Your task to perform on an android device: Open Reddit.com Image 0: 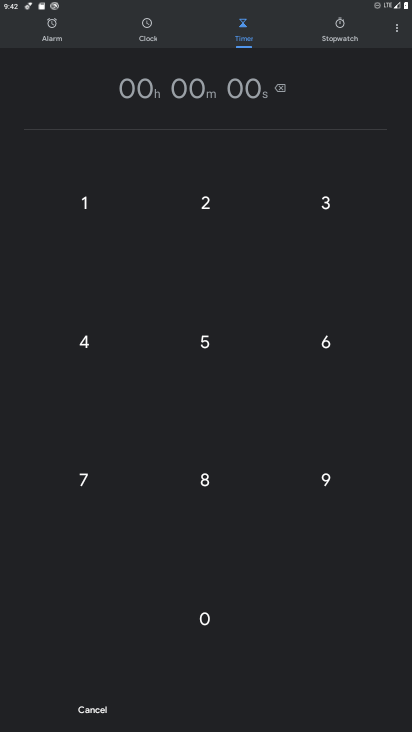
Step 0: press home button
Your task to perform on an android device: Open Reddit.com Image 1: 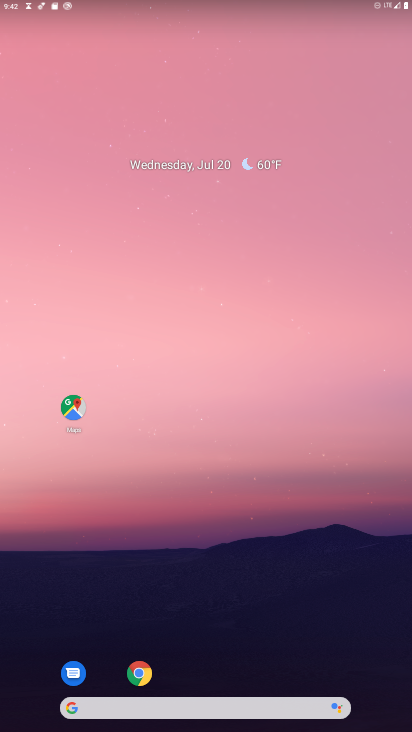
Step 1: click (141, 672)
Your task to perform on an android device: Open Reddit.com Image 2: 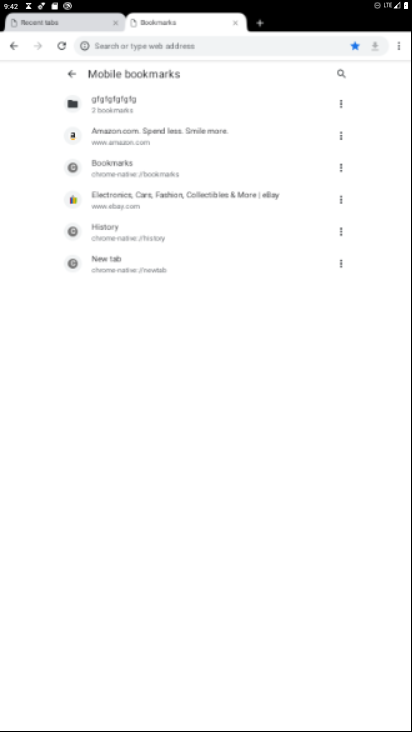
Step 2: drag from (189, 561) to (265, 196)
Your task to perform on an android device: Open Reddit.com Image 3: 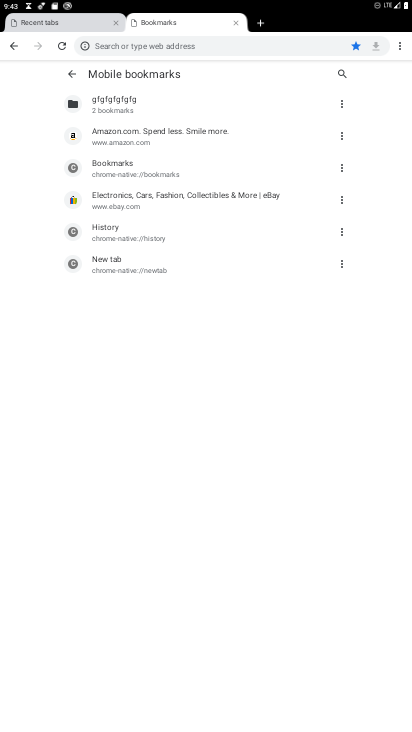
Step 3: click (199, 34)
Your task to perform on an android device: Open Reddit.com Image 4: 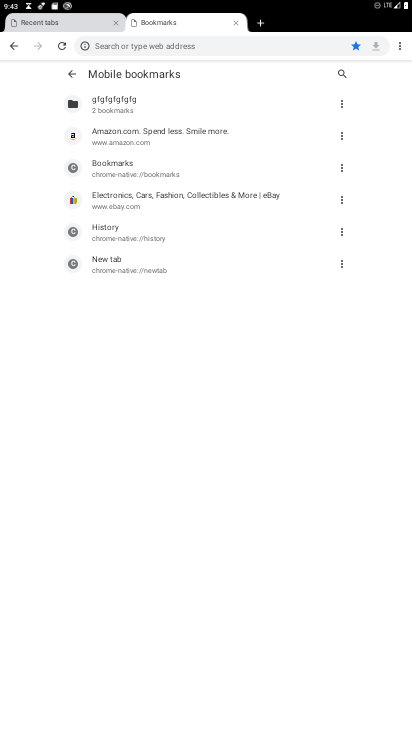
Step 4: click (190, 42)
Your task to perform on an android device: Open Reddit.com Image 5: 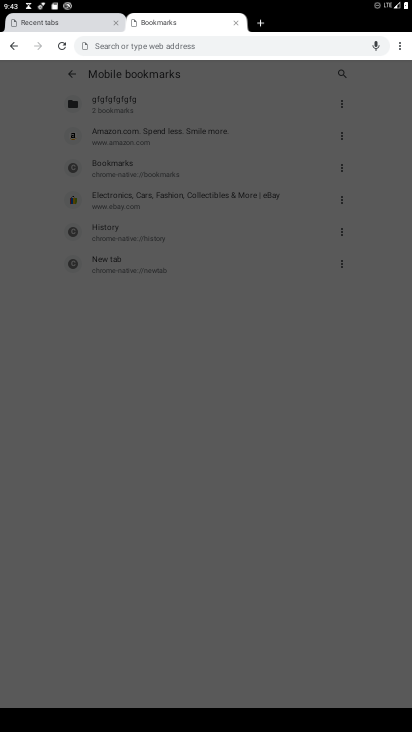
Step 5: type "www.reddit.com"
Your task to perform on an android device: Open Reddit.com Image 6: 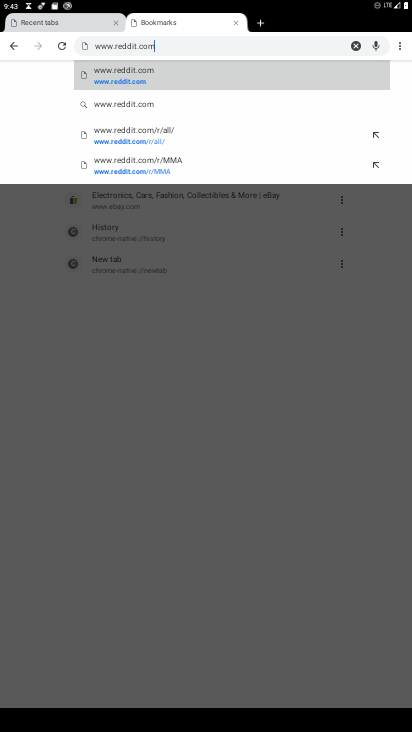
Step 6: click (115, 71)
Your task to perform on an android device: Open Reddit.com Image 7: 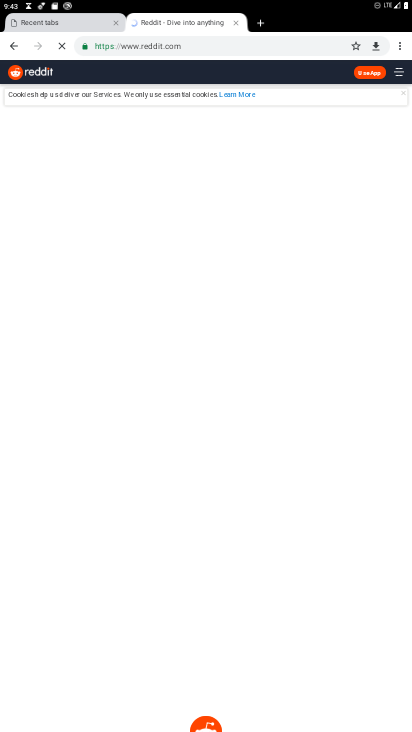
Step 7: task complete